Your task to perform on an android device: Go to display settings Image 0: 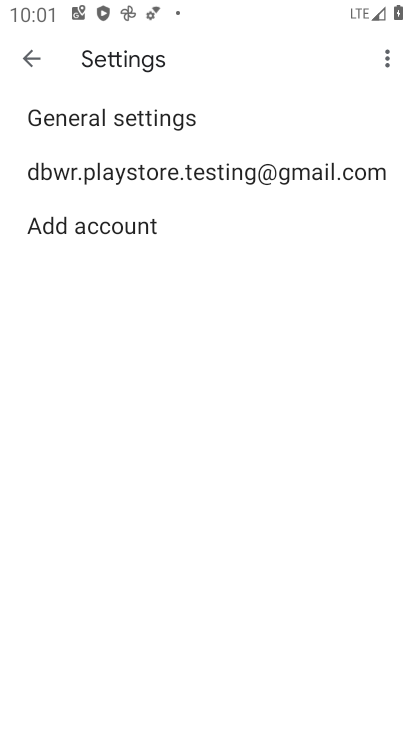
Step 0: press home button
Your task to perform on an android device: Go to display settings Image 1: 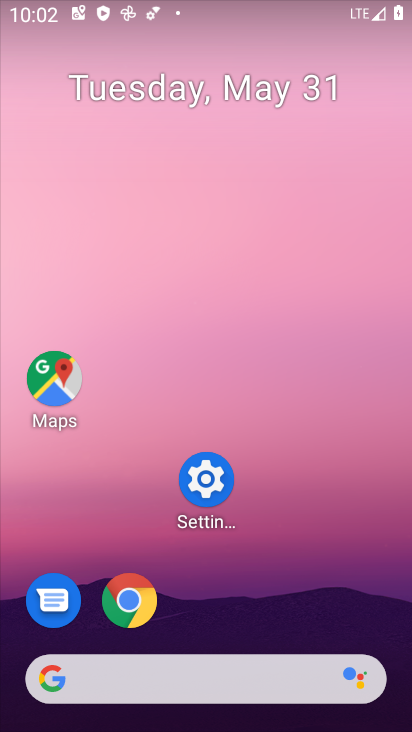
Step 1: click (213, 460)
Your task to perform on an android device: Go to display settings Image 2: 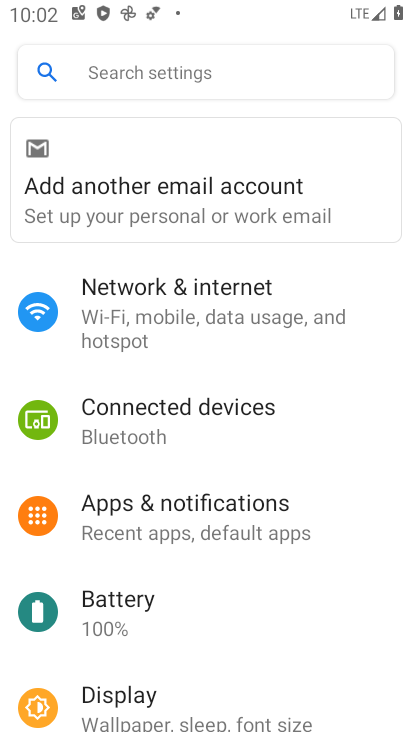
Step 2: click (117, 578)
Your task to perform on an android device: Go to display settings Image 3: 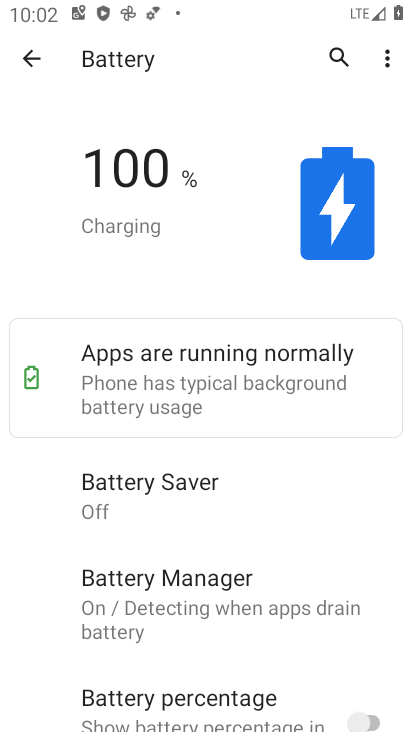
Step 3: click (31, 61)
Your task to perform on an android device: Go to display settings Image 4: 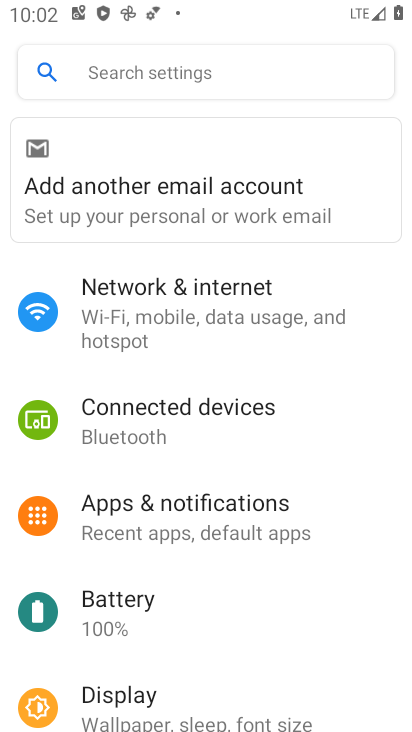
Step 4: click (133, 701)
Your task to perform on an android device: Go to display settings Image 5: 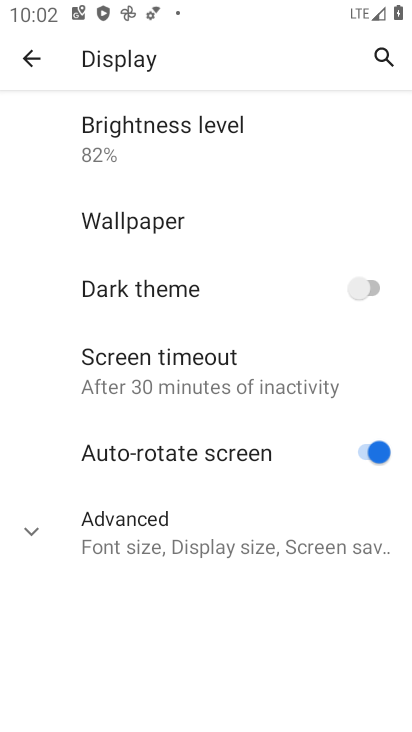
Step 5: task complete